Your task to perform on an android device: Go to settings Image 0: 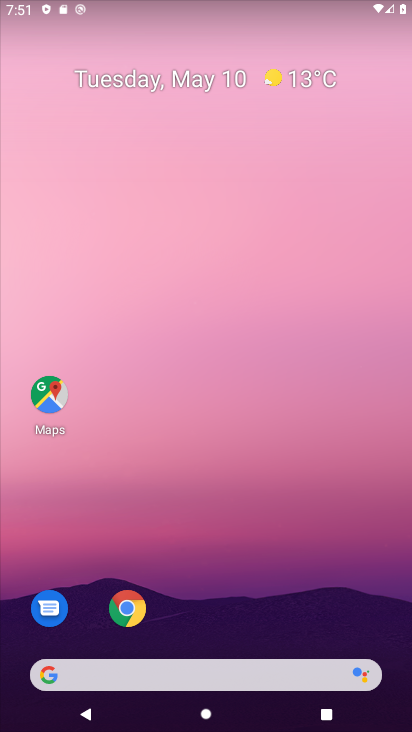
Step 0: press home button
Your task to perform on an android device: Go to settings Image 1: 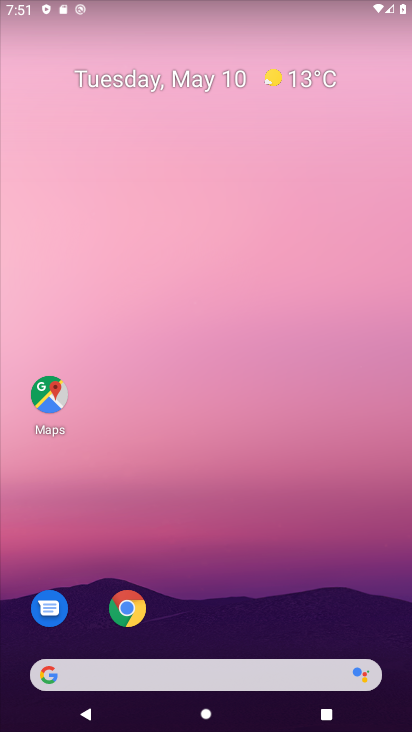
Step 1: drag from (154, 672) to (213, 109)
Your task to perform on an android device: Go to settings Image 2: 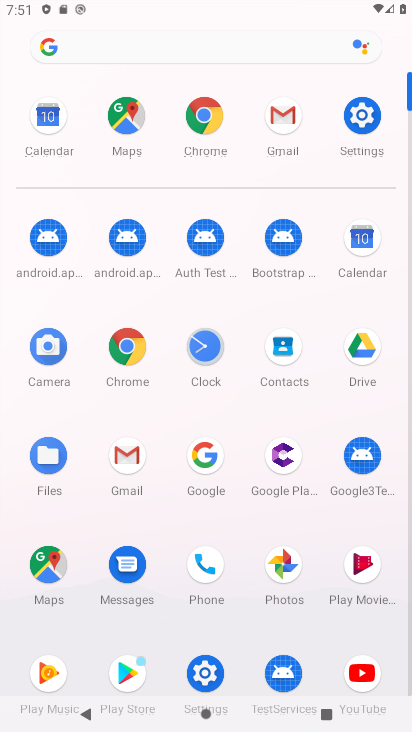
Step 2: click (359, 119)
Your task to perform on an android device: Go to settings Image 3: 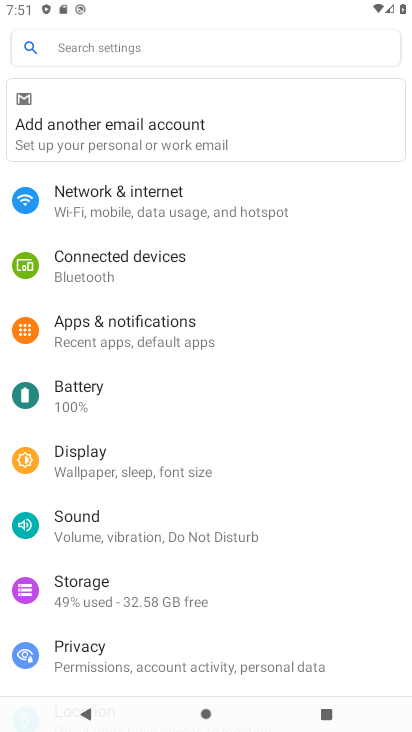
Step 3: task complete